Your task to perform on an android device: change alarm snooze length Image 0: 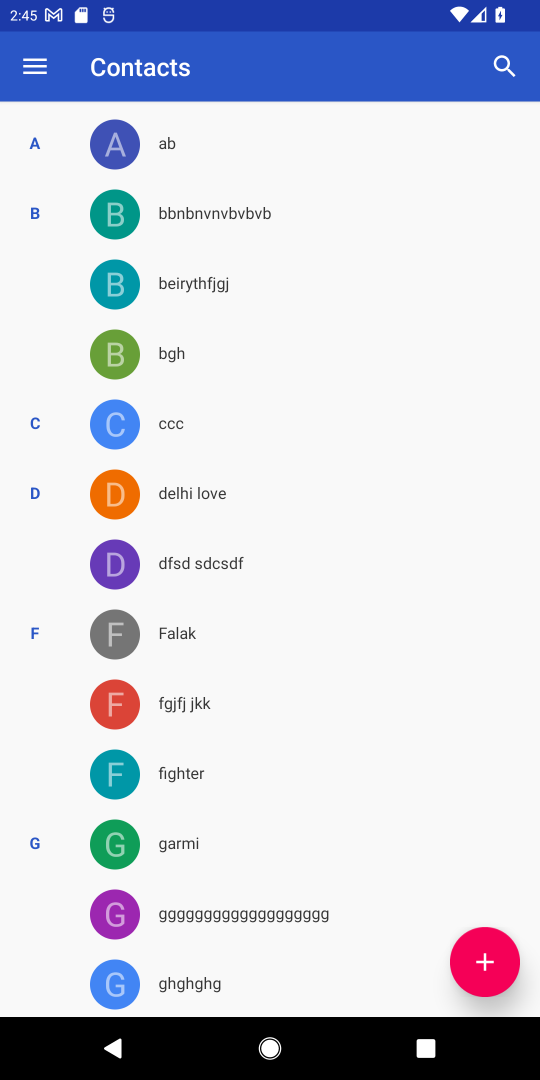
Step 0: press home button
Your task to perform on an android device: change alarm snooze length Image 1: 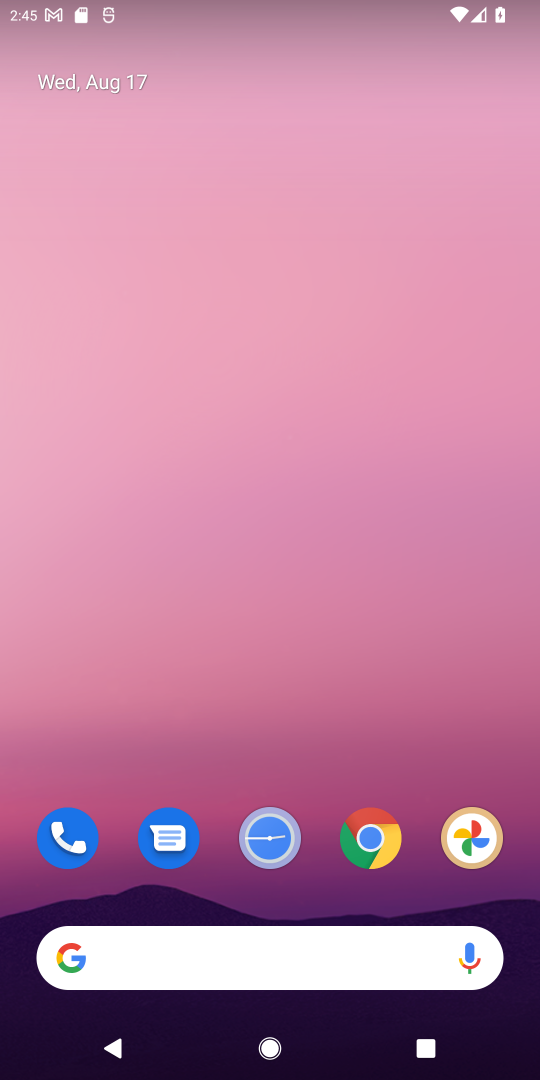
Step 1: click (270, 846)
Your task to perform on an android device: change alarm snooze length Image 2: 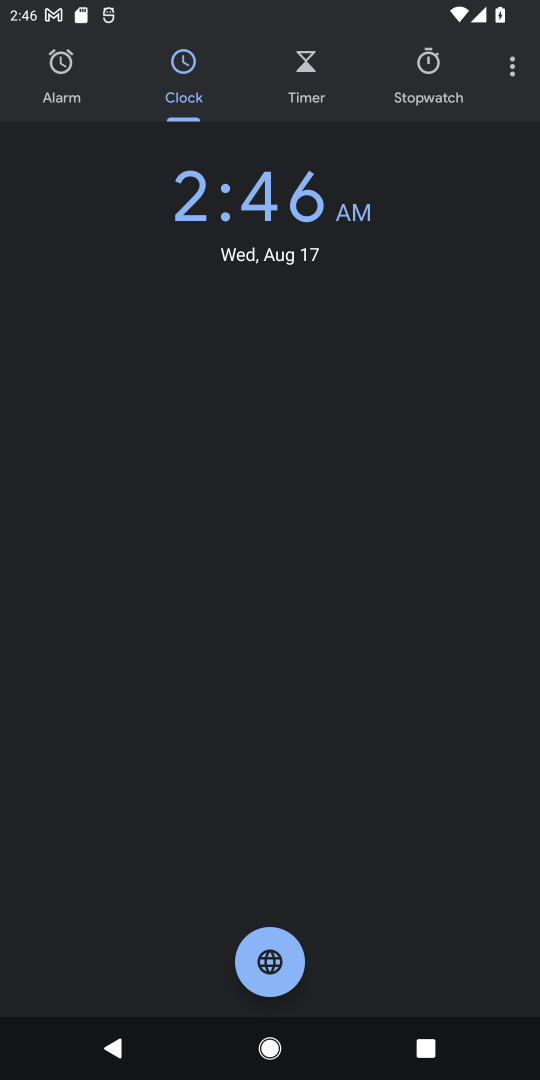
Step 2: click (513, 76)
Your task to perform on an android device: change alarm snooze length Image 3: 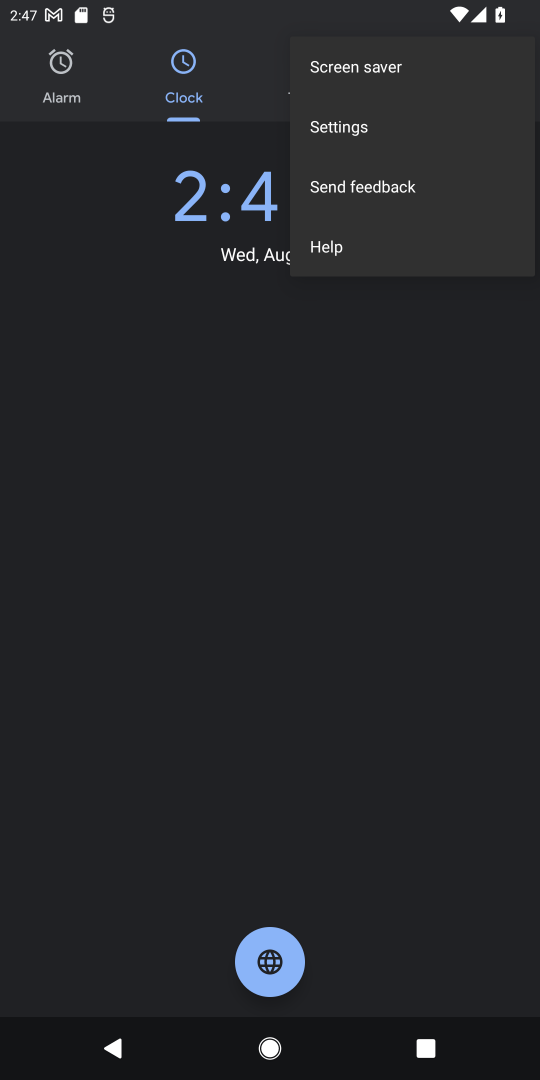
Step 3: click (362, 141)
Your task to perform on an android device: change alarm snooze length Image 4: 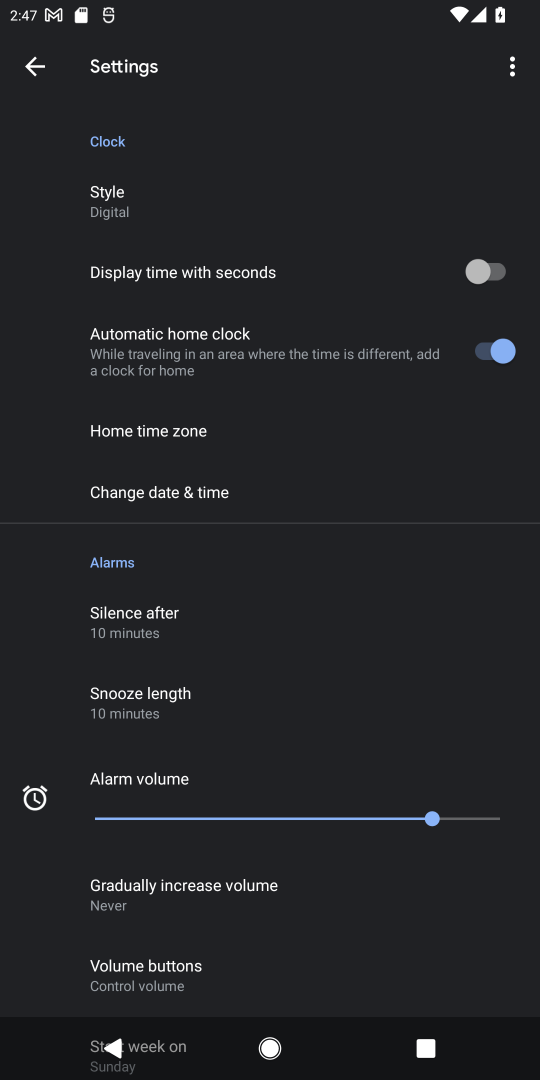
Step 4: drag from (299, 970) to (338, 383)
Your task to perform on an android device: change alarm snooze length Image 5: 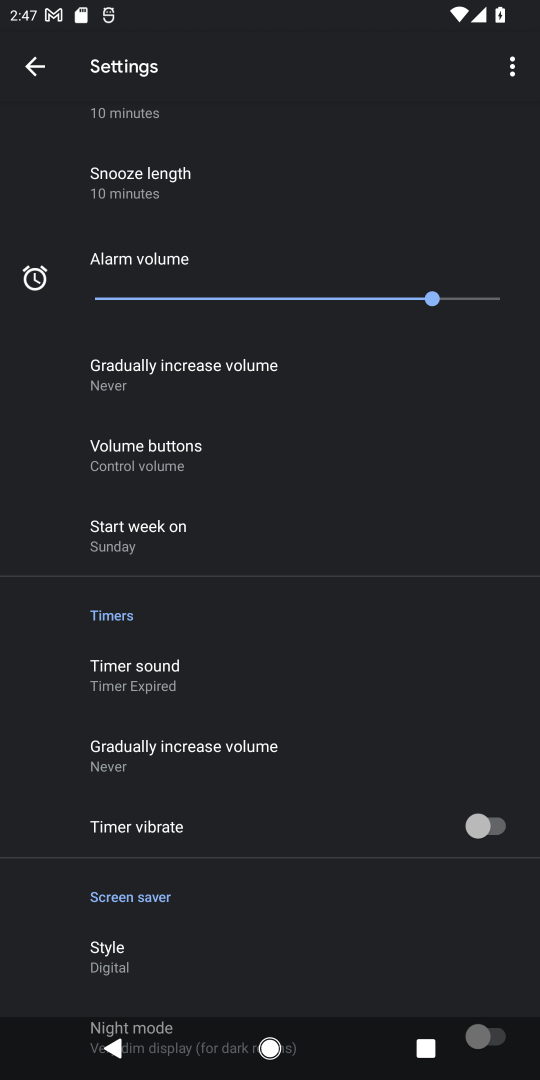
Step 5: click (159, 178)
Your task to perform on an android device: change alarm snooze length Image 6: 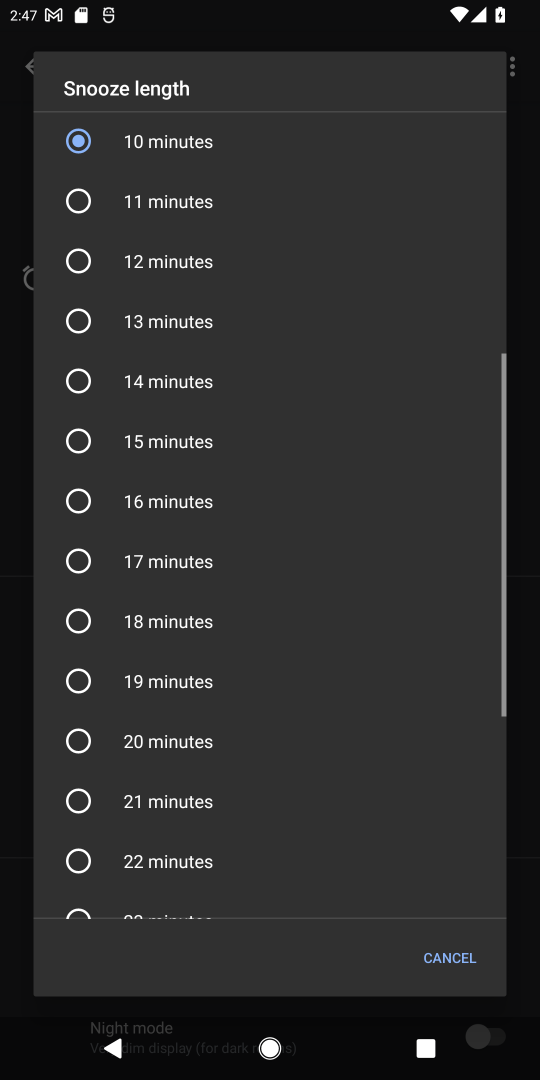
Step 6: click (153, 457)
Your task to perform on an android device: change alarm snooze length Image 7: 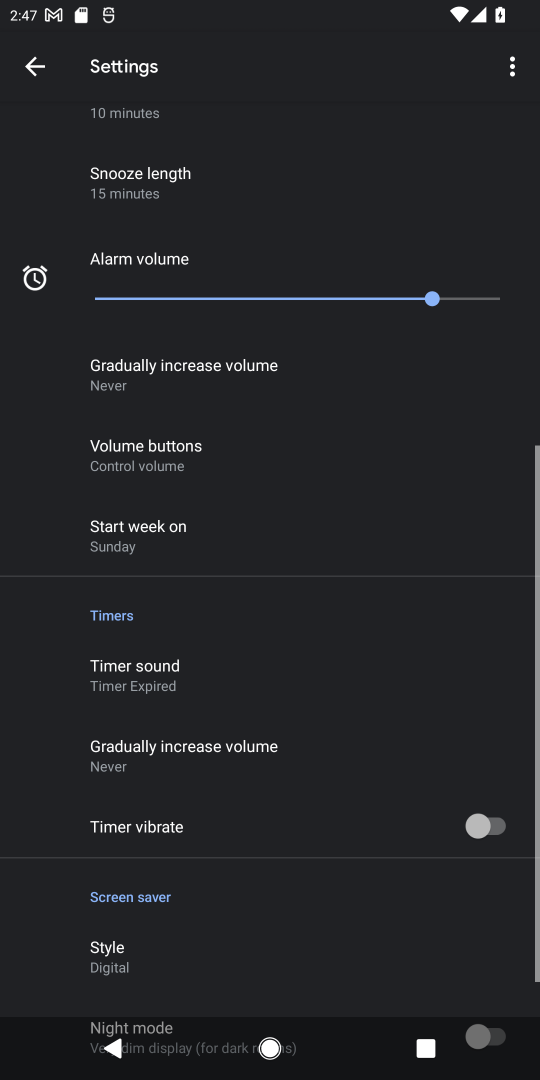
Step 7: task complete